Your task to perform on an android device: toggle sleep mode Image 0: 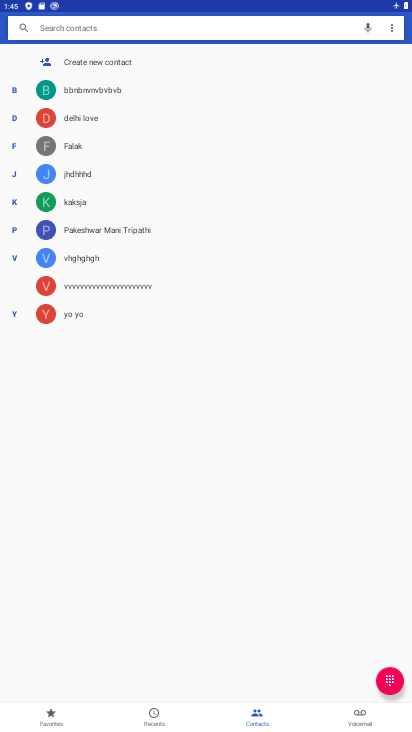
Step 0: press home button
Your task to perform on an android device: toggle sleep mode Image 1: 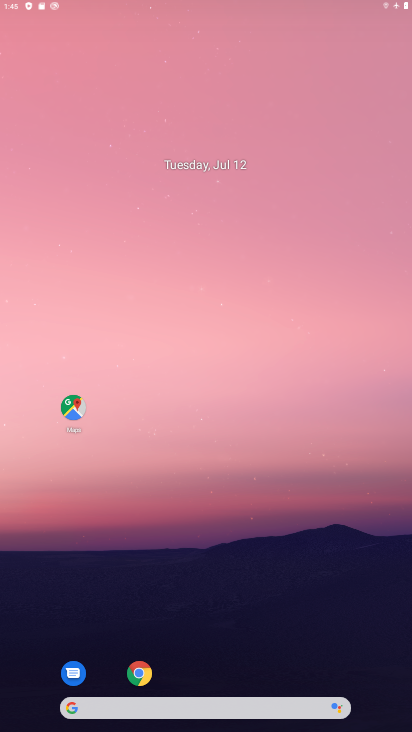
Step 1: drag from (171, 660) to (249, 287)
Your task to perform on an android device: toggle sleep mode Image 2: 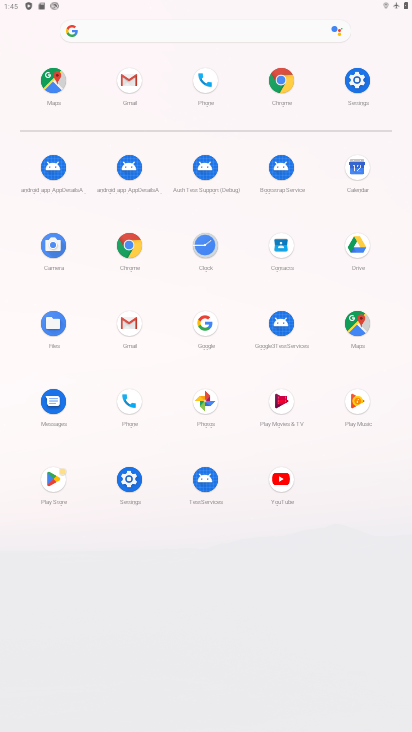
Step 2: click (349, 72)
Your task to perform on an android device: toggle sleep mode Image 3: 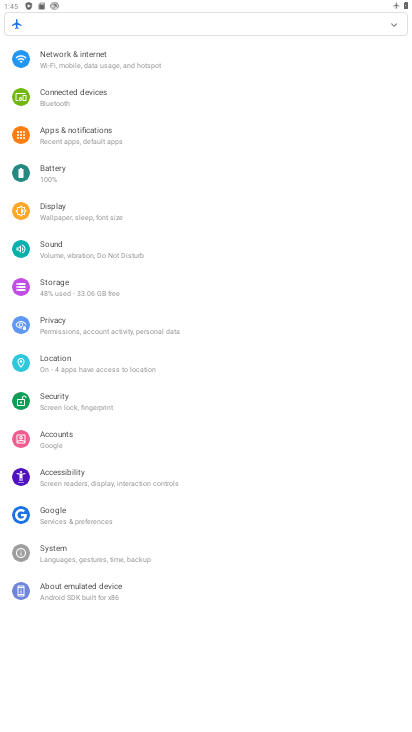
Step 3: task complete